Your task to perform on an android device: change the clock display to analog Image 0: 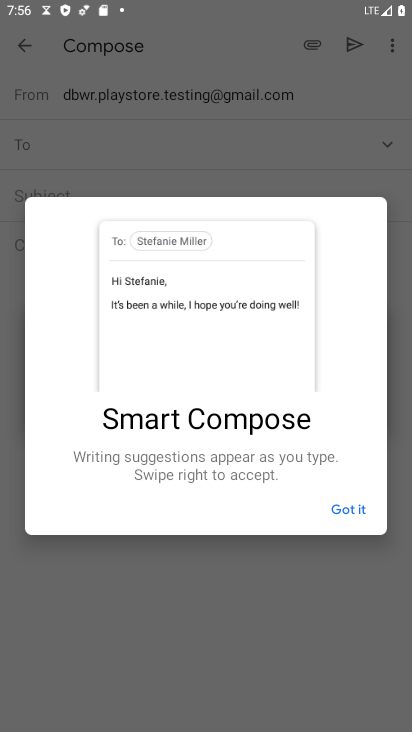
Step 0: press home button
Your task to perform on an android device: change the clock display to analog Image 1: 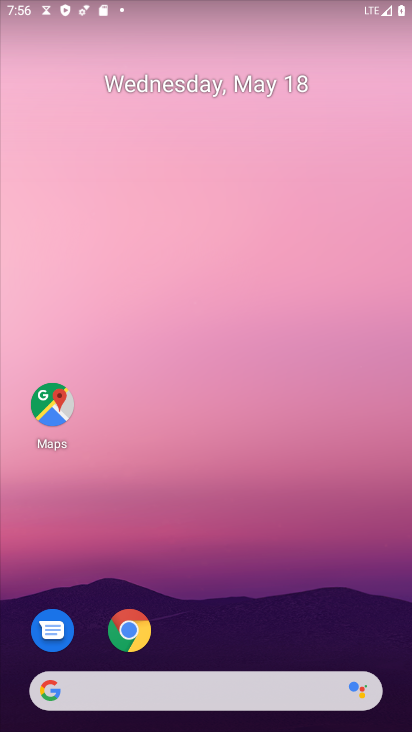
Step 1: drag from (314, 600) to (350, 133)
Your task to perform on an android device: change the clock display to analog Image 2: 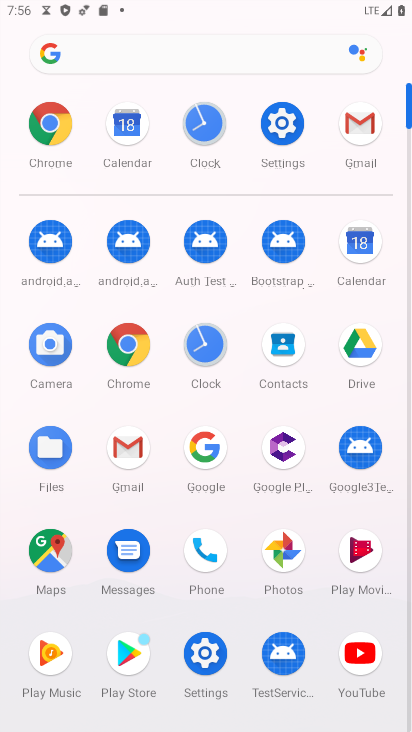
Step 2: click (203, 117)
Your task to perform on an android device: change the clock display to analog Image 3: 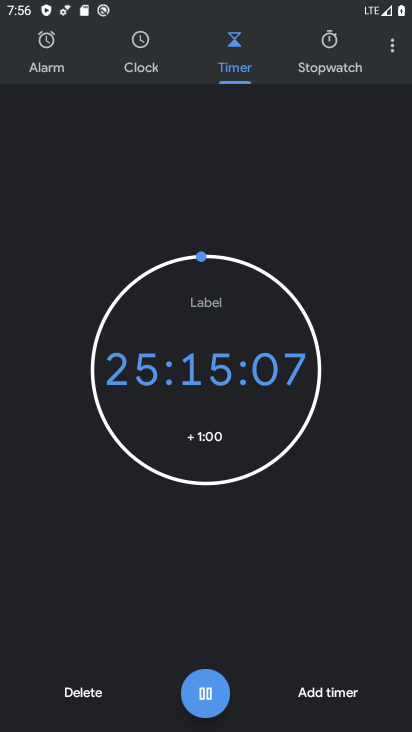
Step 3: click (395, 48)
Your task to perform on an android device: change the clock display to analog Image 4: 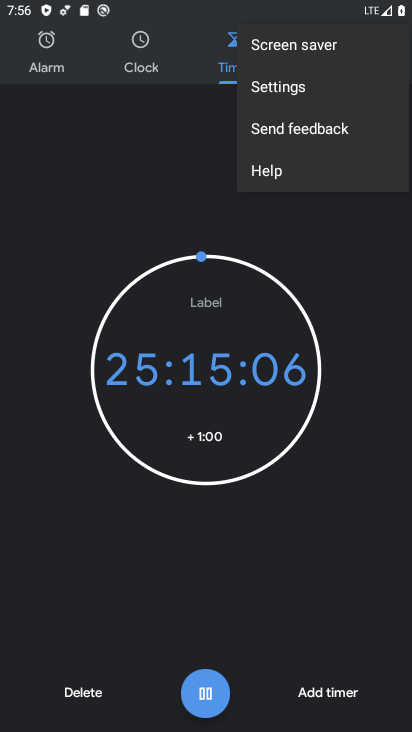
Step 4: click (283, 95)
Your task to perform on an android device: change the clock display to analog Image 5: 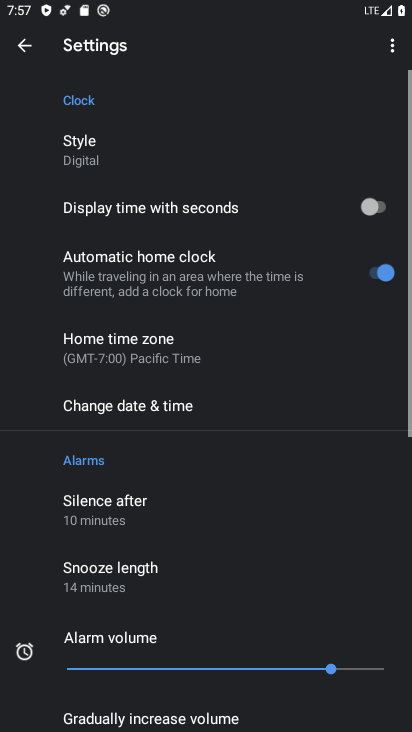
Step 5: click (112, 151)
Your task to perform on an android device: change the clock display to analog Image 6: 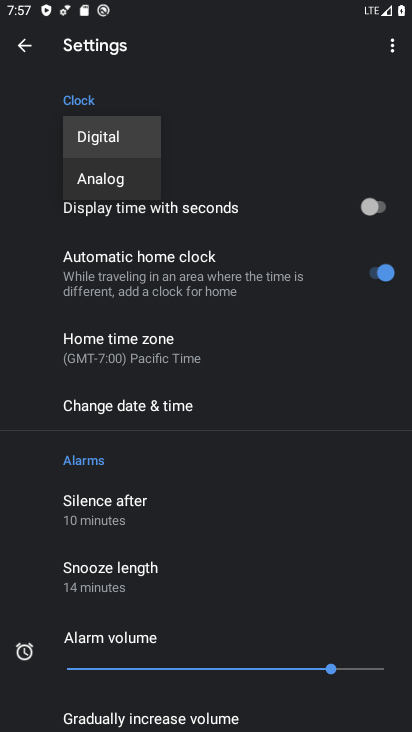
Step 6: click (108, 182)
Your task to perform on an android device: change the clock display to analog Image 7: 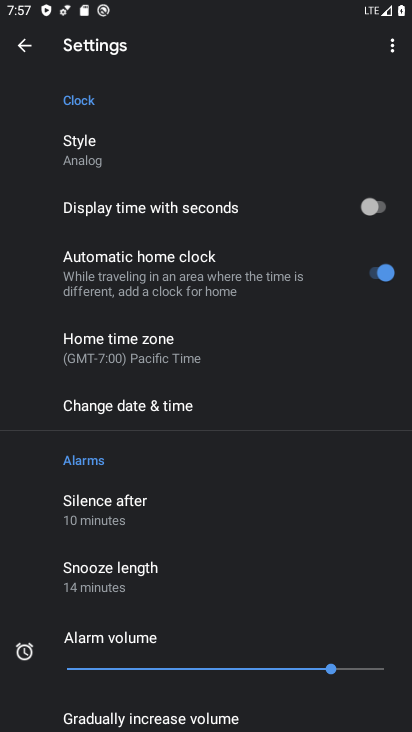
Step 7: task complete